Your task to perform on an android device: toggle location history Image 0: 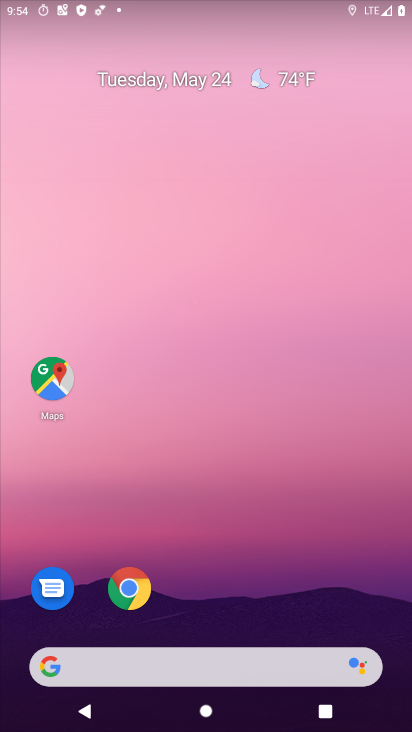
Step 0: drag from (254, 565) to (223, 1)
Your task to perform on an android device: toggle location history Image 1: 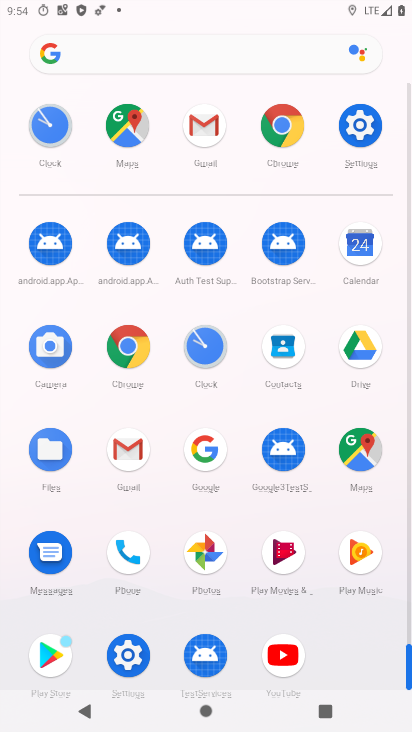
Step 1: drag from (5, 591) to (18, 225)
Your task to perform on an android device: toggle location history Image 2: 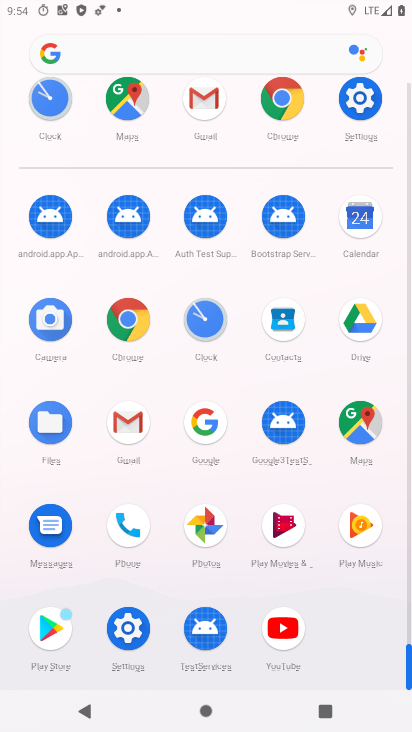
Step 2: click (128, 624)
Your task to perform on an android device: toggle location history Image 3: 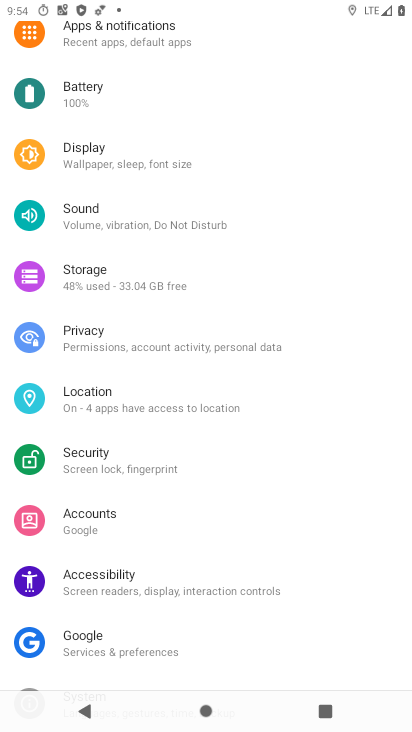
Step 3: drag from (224, 585) to (291, 102)
Your task to perform on an android device: toggle location history Image 4: 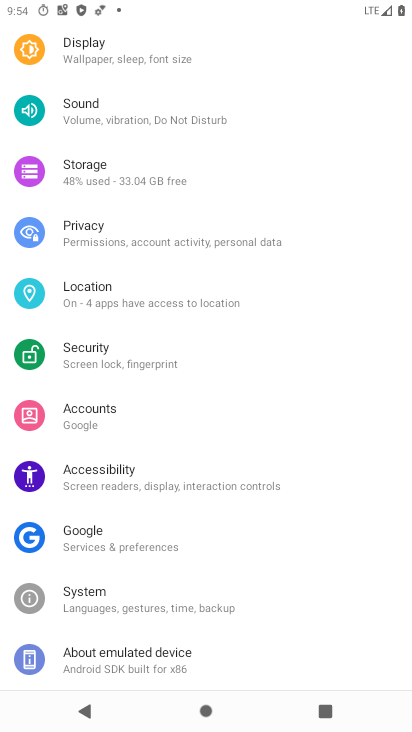
Step 4: click (103, 293)
Your task to perform on an android device: toggle location history Image 5: 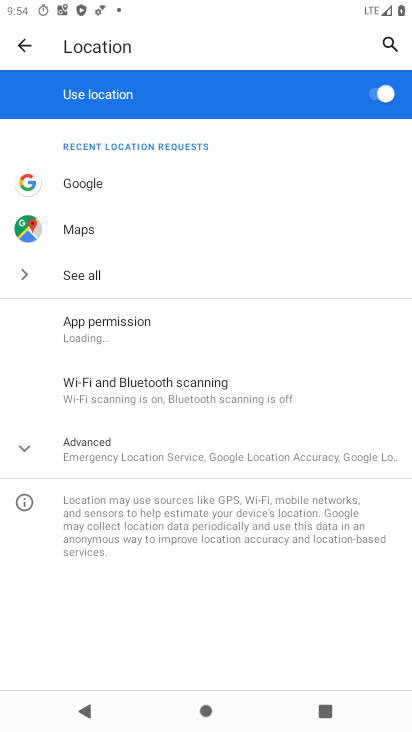
Step 5: click (81, 452)
Your task to perform on an android device: toggle location history Image 6: 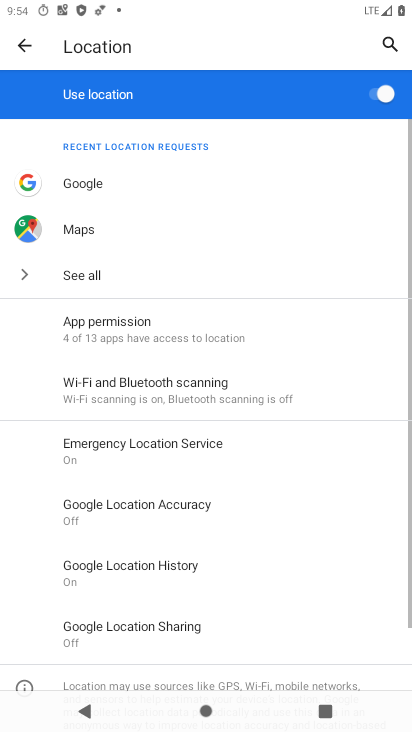
Step 6: click (178, 564)
Your task to perform on an android device: toggle location history Image 7: 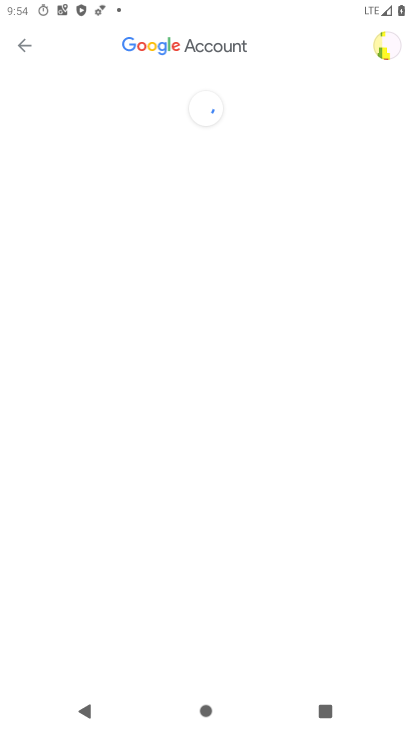
Step 7: drag from (179, 500) to (178, 163)
Your task to perform on an android device: toggle location history Image 8: 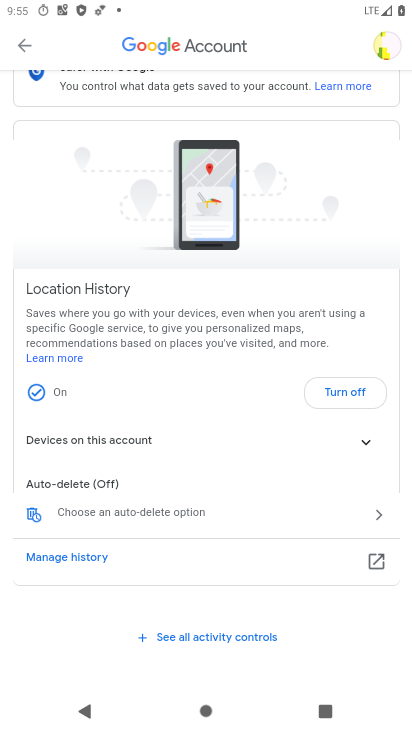
Step 8: click (129, 500)
Your task to perform on an android device: toggle location history Image 9: 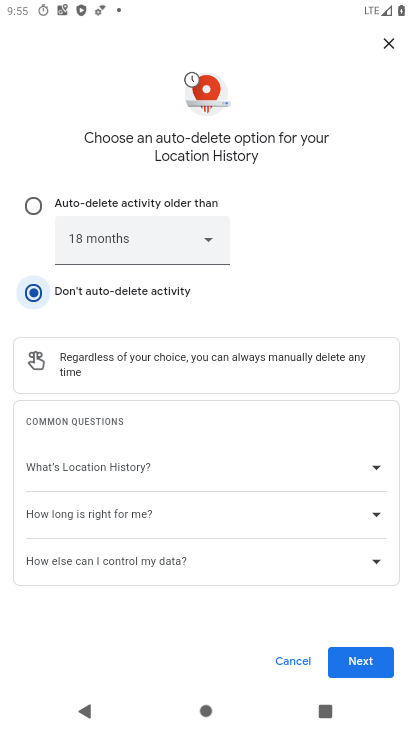
Step 9: click (384, 41)
Your task to perform on an android device: toggle location history Image 10: 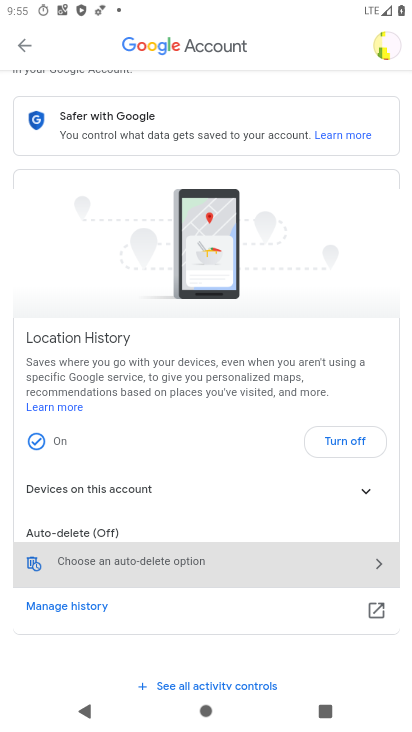
Step 10: click (342, 433)
Your task to perform on an android device: toggle location history Image 11: 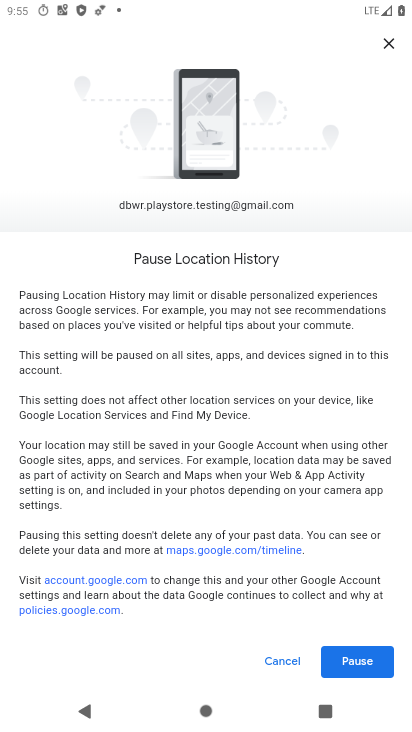
Step 11: drag from (284, 571) to (283, 168)
Your task to perform on an android device: toggle location history Image 12: 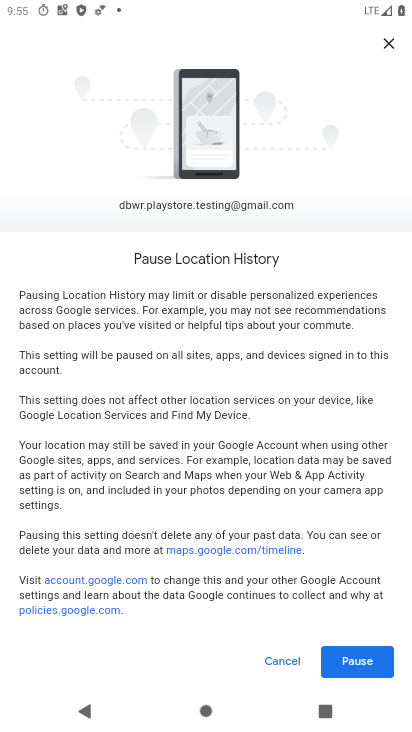
Step 12: click (351, 674)
Your task to perform on an android device: toggle location history Image 13: 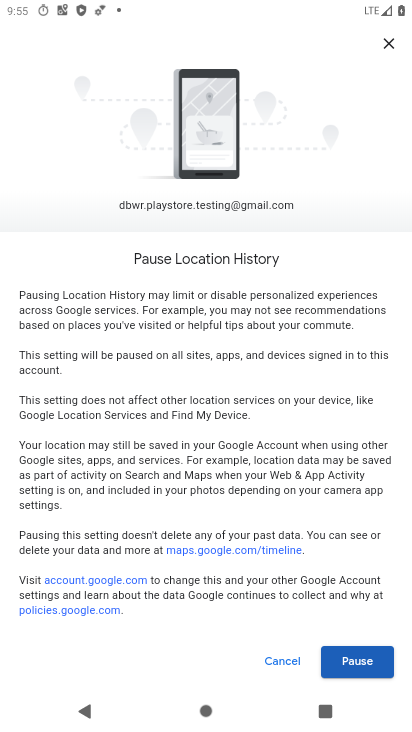
Step 13: click (352, 662)
Your task to perform on an android device: toggle location history Image 14: 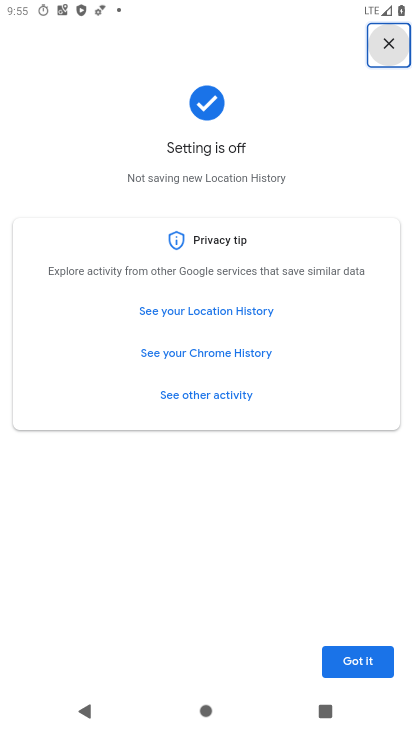
Step 14: task complete